Your task to perform on an android device: Open Google Chrome and click the shortcut for Amazon.com Image 0: 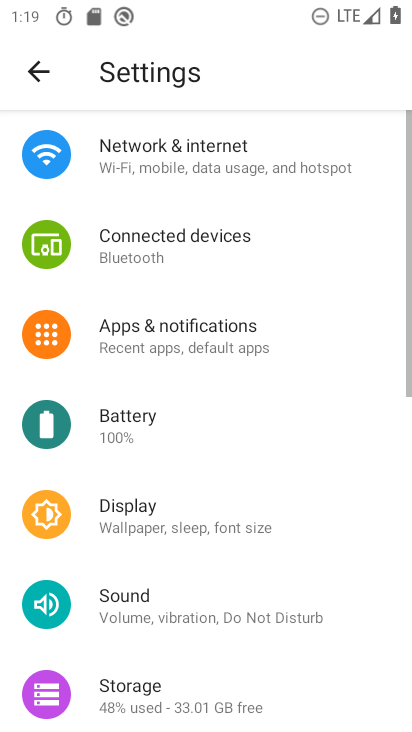
Step 0: drag from (192, 573) to (216, 157)
Your task to perform on an android device: Open Google Chrome and click the shortcut for Amazon.com Image 1: 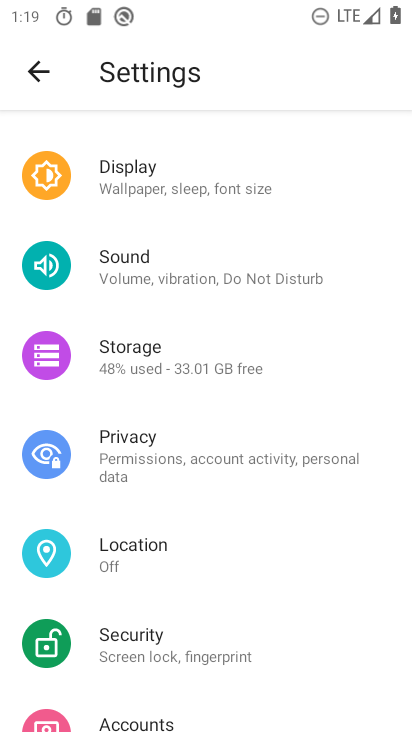
Step 1: press home button
Your task to perform on an android device: Open Google Chrome and click the shortcut for Amazon.com Image 2: 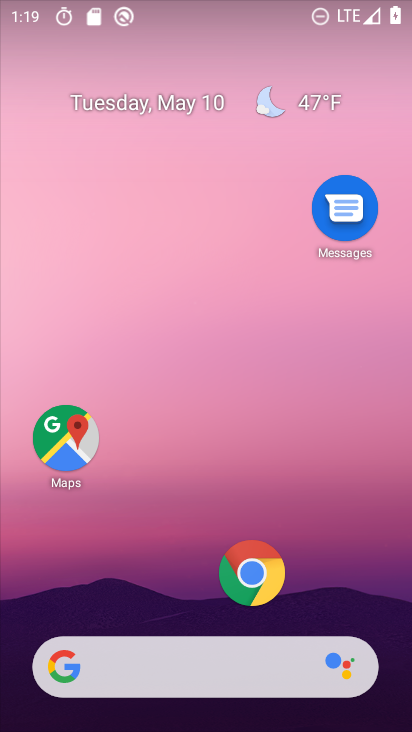
Step 2: drag from (174, 610) to (286, 217)
Your task to perform on an android device: Open Google Chrome and click the shortcut for Amazon.com Image 3: 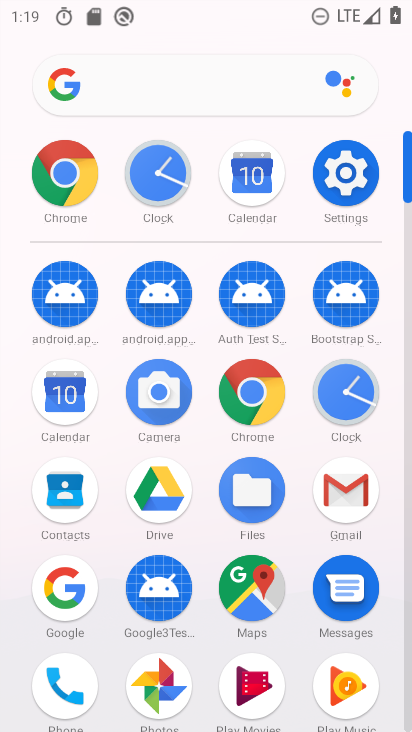
Step 3: drag from (209, 635) to (211, 270)
Your task to perform on an android device: Open Google Chrome and click the shortcut for Amazon.com Image 4: 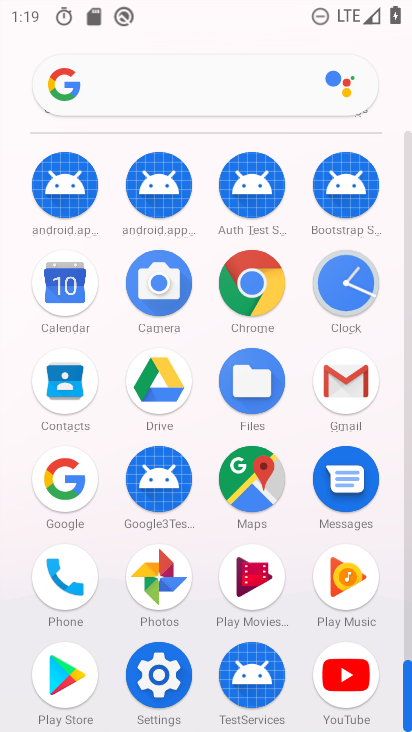
Step 4: click (248, 280)
Your task to perform on an android device: Open Google Chrome and click the shortcut for Amazon.com Image 5: 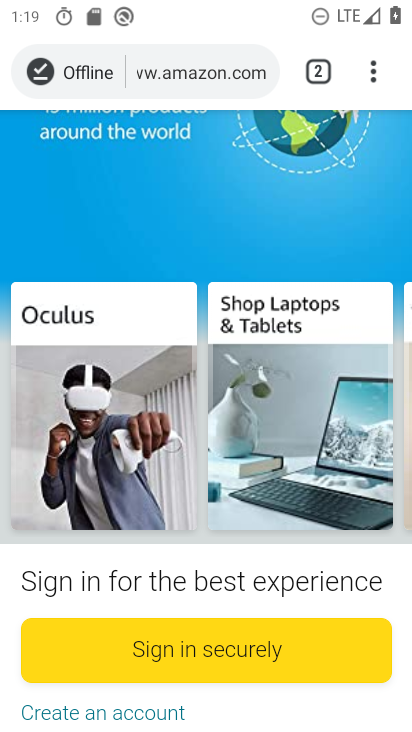
Step 5: task complete